Your task to perform on an android device: What is the recent news? Image 0: 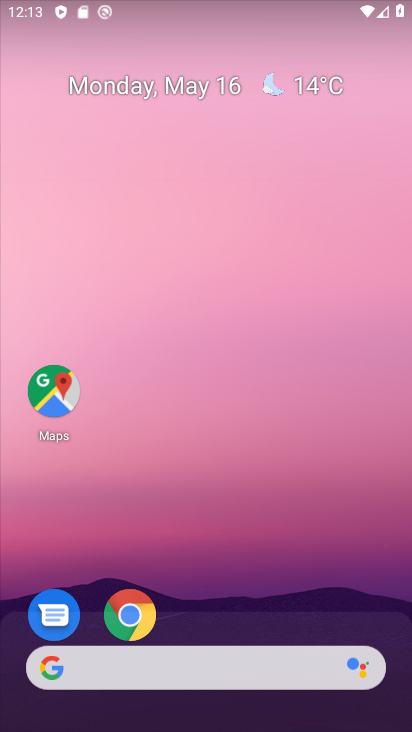
Step 0: click (129, 629)
Your task to perform on an android device: What is the recent news? Image 1: 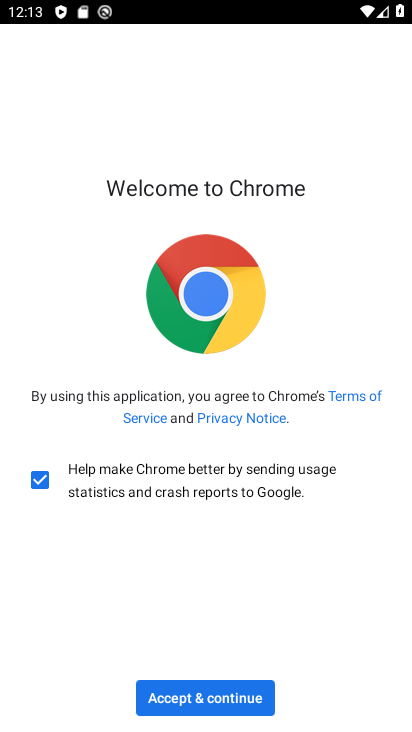
Step 1: click (233, 711)
Your task to perform on an android device: What is the recent news? Image 2: 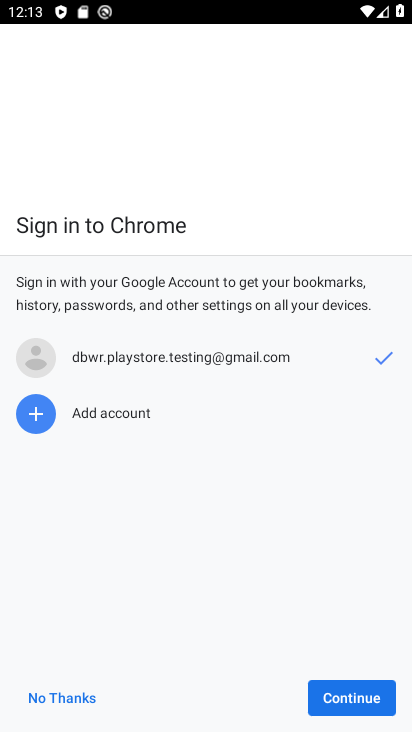
Step 2: click (382, 698)
Your task to perform on an android device: What is the recent news? Image 3: 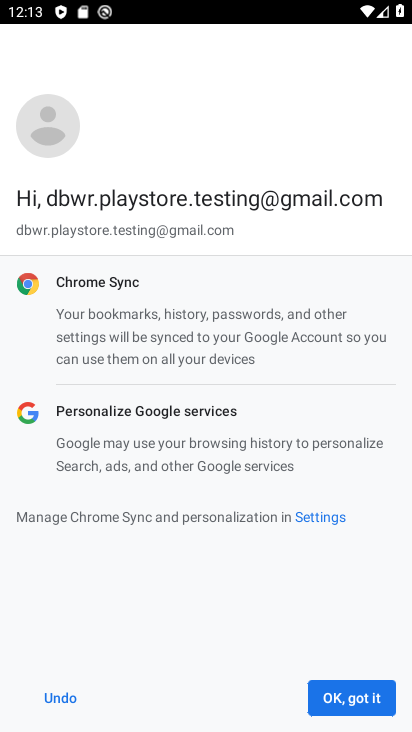
Step 3: click (382, 698)
Your task to perform on an android device: What is the recent news? Image 4: 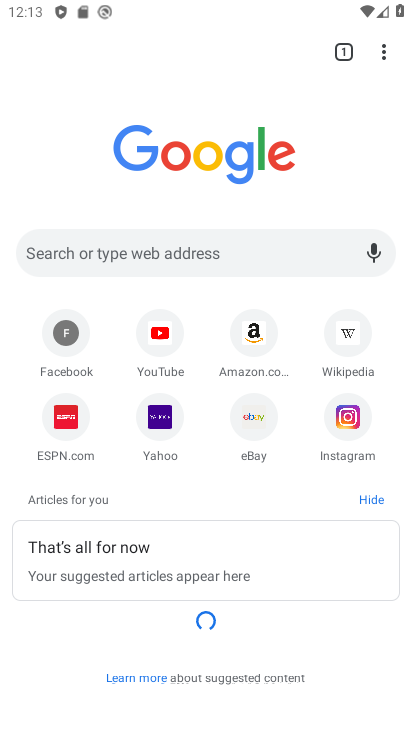
Step 4: click (229, 245)
Your task to perform on an android device: What is the recent news? Image 5: 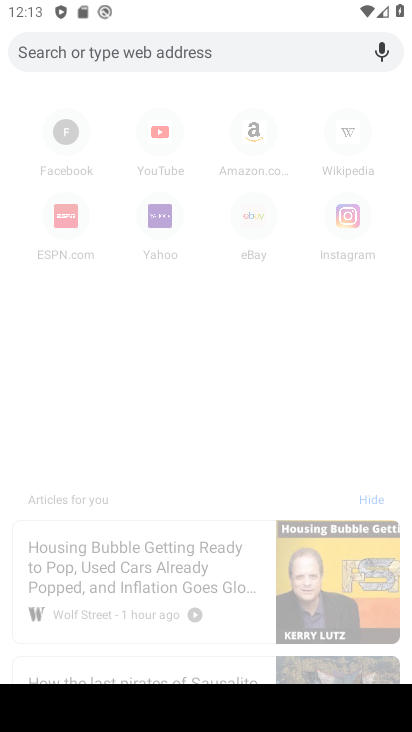
Step 5: type "what is the recent news"
Your task to perform on an android device: What is the recent news? Image 6: 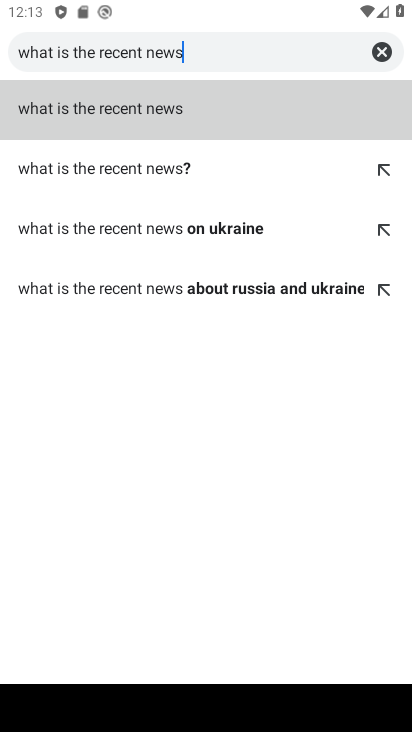
Step 6: click (119, 109)
Your task to perform on an android device: What is the recent news? Image 7: 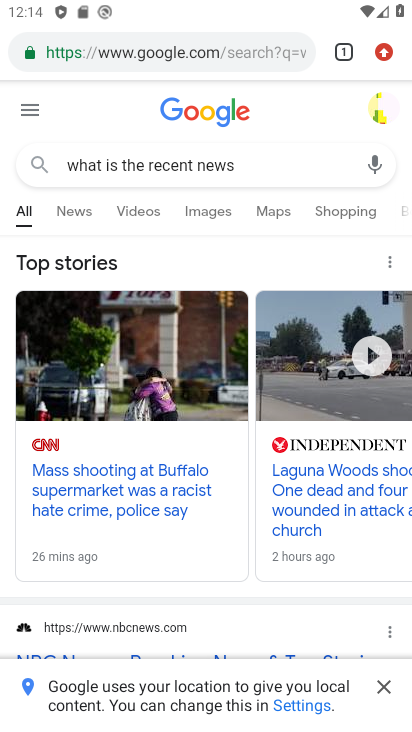
Step 7: task complete